Your task to perform on an android device: open app "DoorDash - Food Delivery" Image 0: 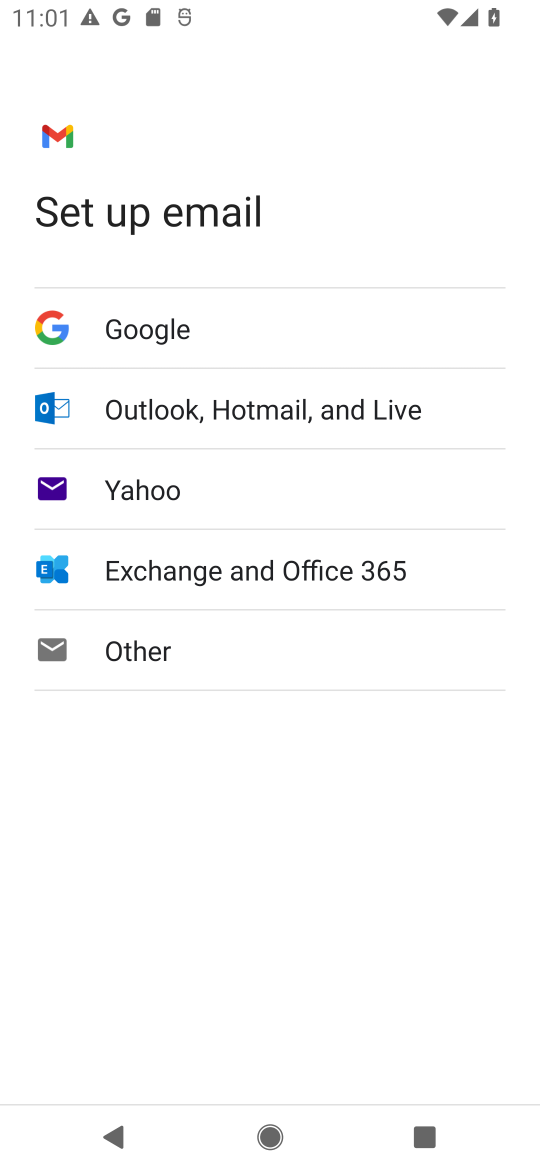
Step 0: press home button
Your task to perform on an android device: open app "DoorDash - Food Delivery" Image 1: 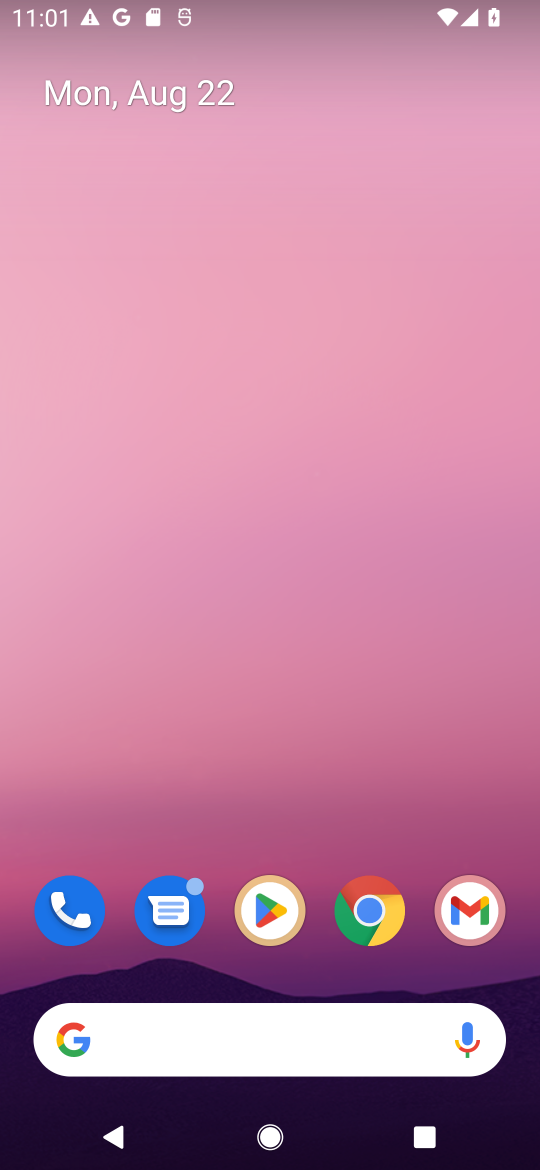
Step 1: click (247, 895)
Your task to perform on an android device: open app "DoorDash - Food Delivery" Image 2: 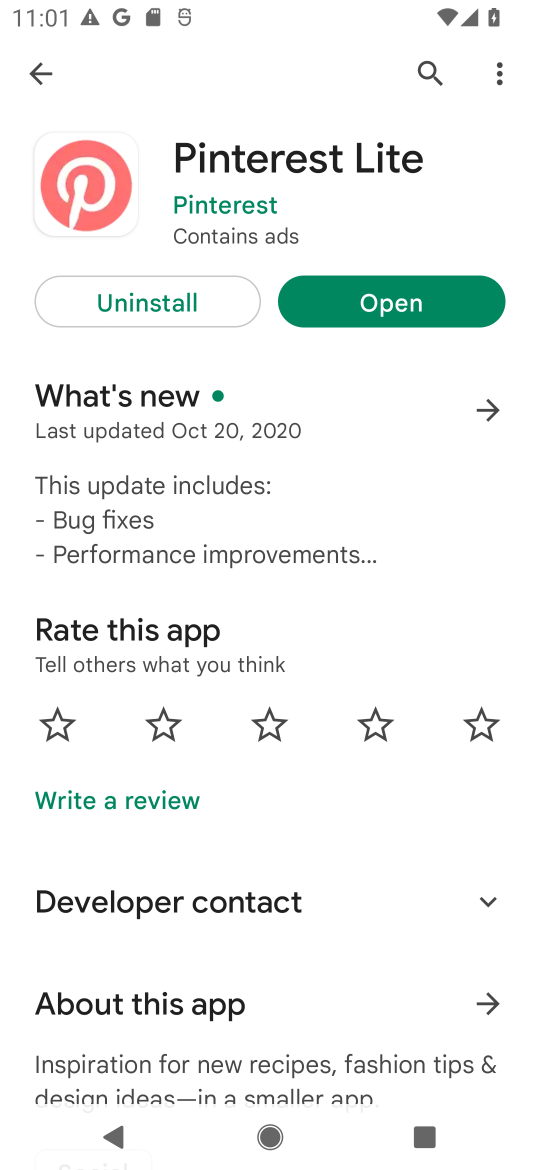
Step 2: click (416, 86)
Your task to perform on an android device: open app "DoorDash - Food Delivery" Image 3: 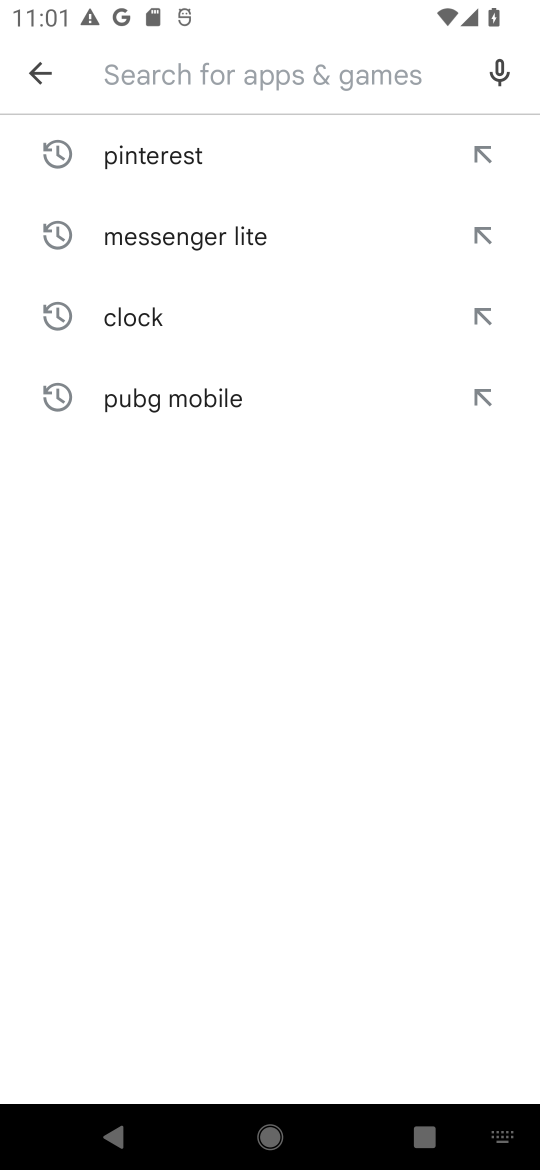
Step 3: type "DoorDash - Food Delivery"
Your task to perform on an android device: open app "DoorDash - Food Delivery" Image 4: 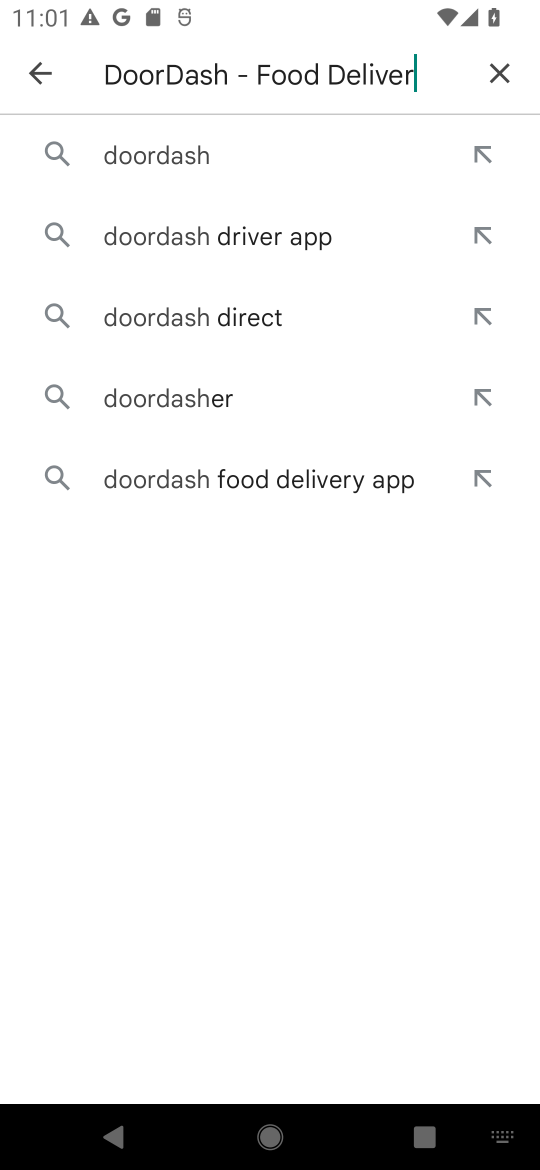
Step 4: type ""
Your task to perform on an android device: open app "DoorDash - Food Delivery" Image 5: 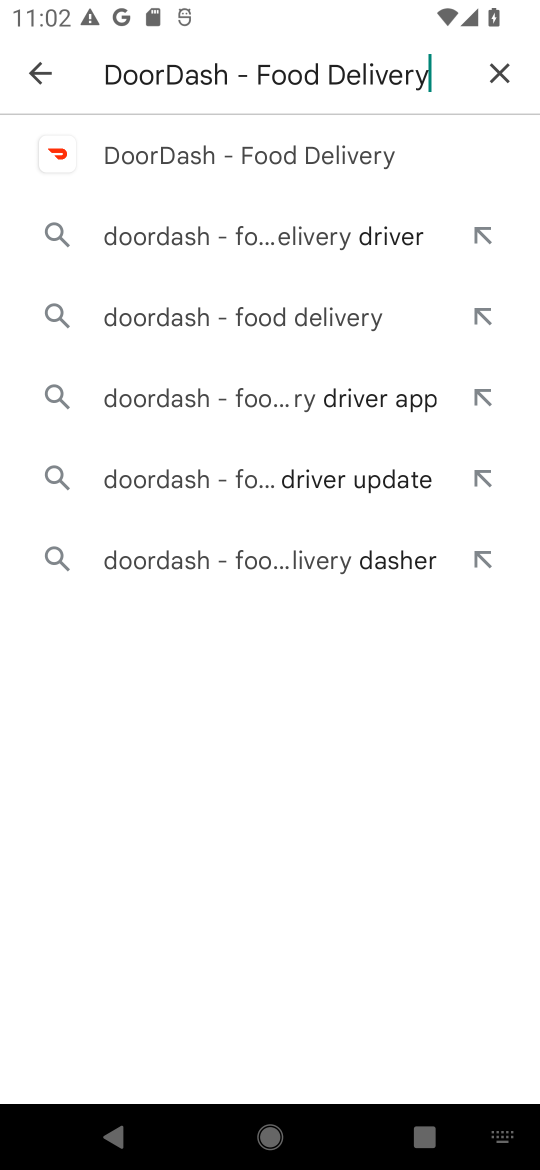
Step 5: click (217, 139)
Your task to perform on an android device: open app "DoorDash - Food Delivery" Image 6: 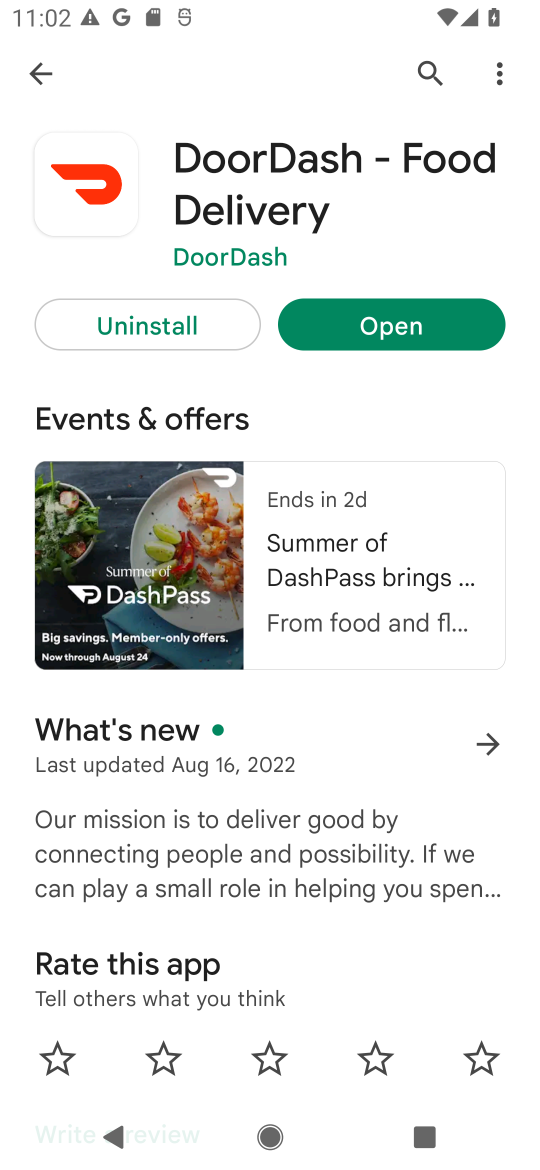
Step 6: click (382, 335)
Your task to perform on an android device: open app "DoorDash - Food Delivery" Image 7: 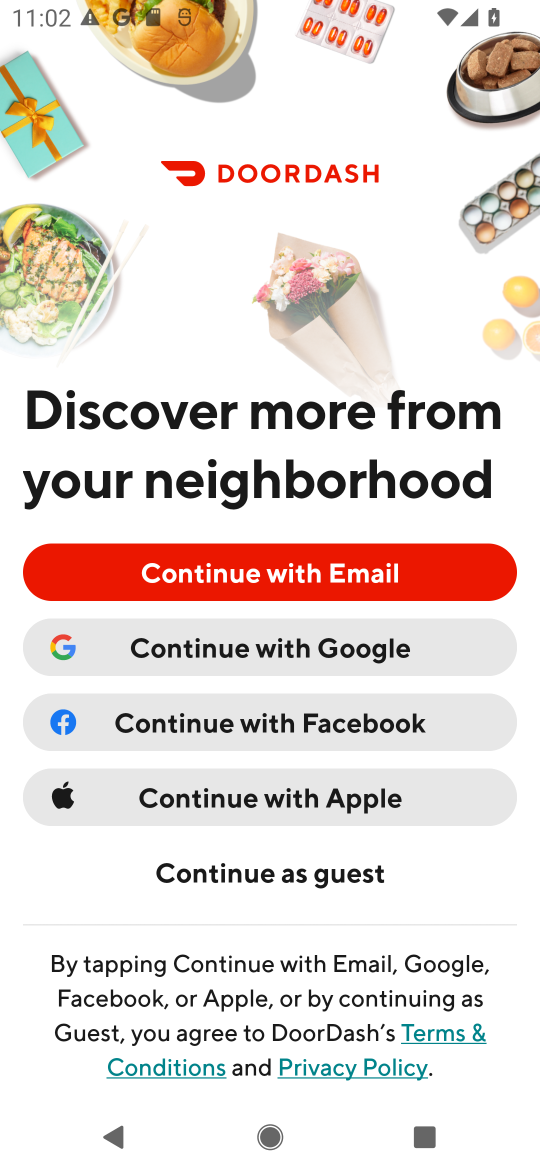
Step 7: task complete